Your task to perform on an android device: Go to Wikipedia Image 0: 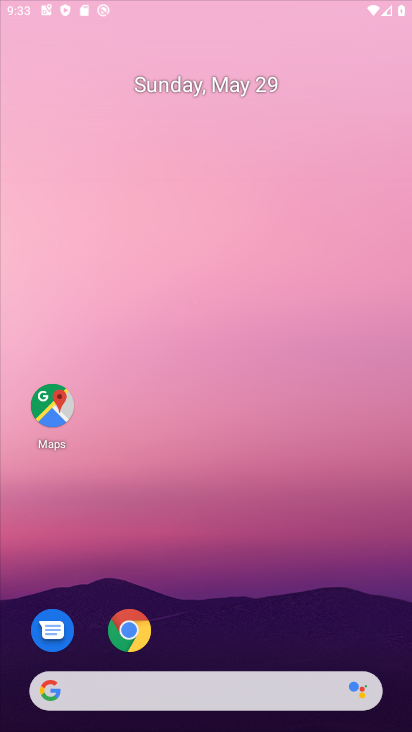
Step 0: click (357, 113)
Your task to perform on an android device: Go to Wikipedia Image 1: 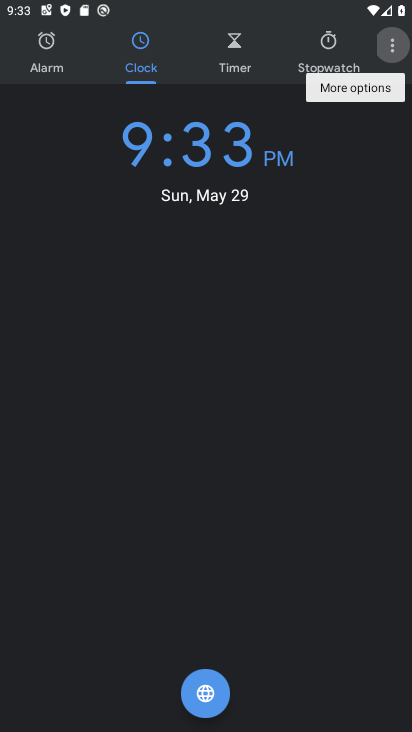
Step 1: press home button
Your task to perform on an android device: Go to Wikipedia Image 2: 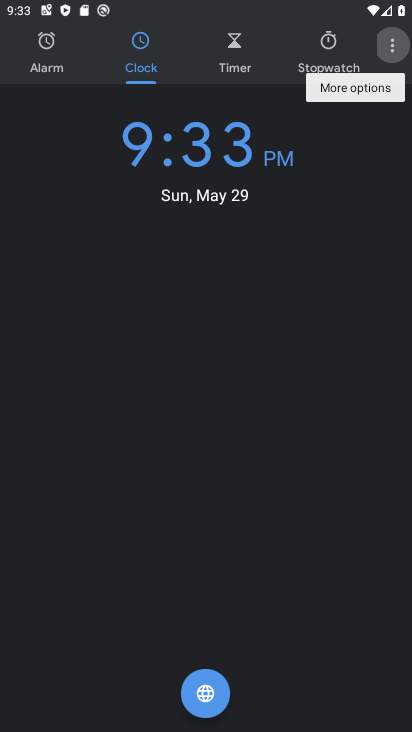
Step 2: drag from (357, 113) to (408, 217)
Your task to perform on an android device: Go to Wikipedia Image 3: 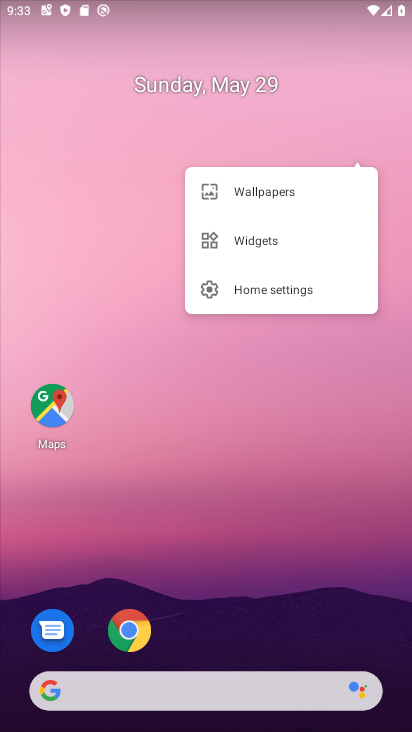
Step 3: click (126, 622)
Your task to perform on an android device: Go to Wikipedia Image 4: 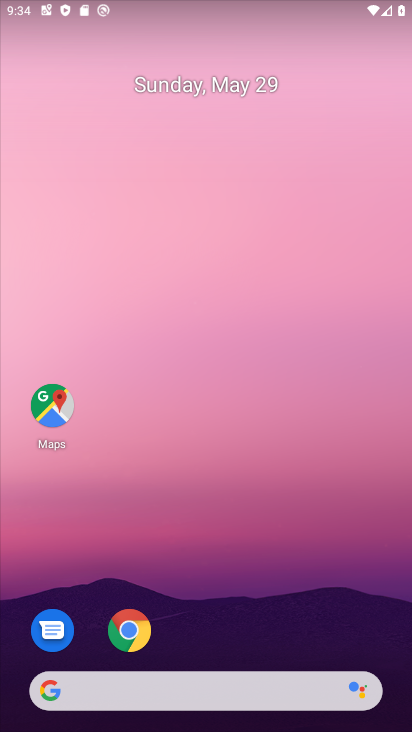
Step 4: drag from (126, 623) to (155, 381)
Your task to perform on an android device: Go to Wikipedia Image 5: 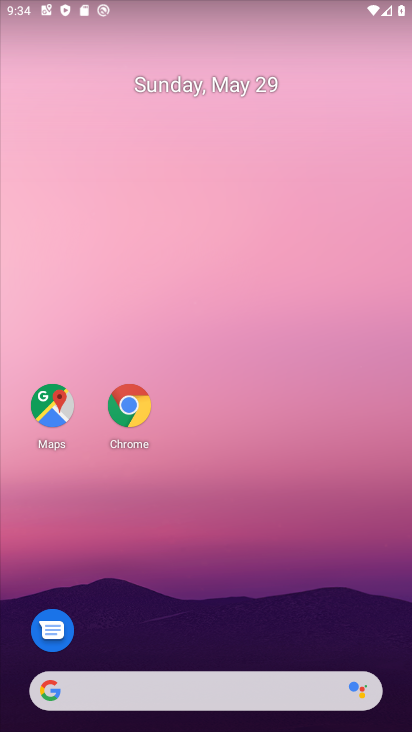
Step 5: click (149, 405)
Your task to perform on an android device: Go to Wikipedia Image 6: 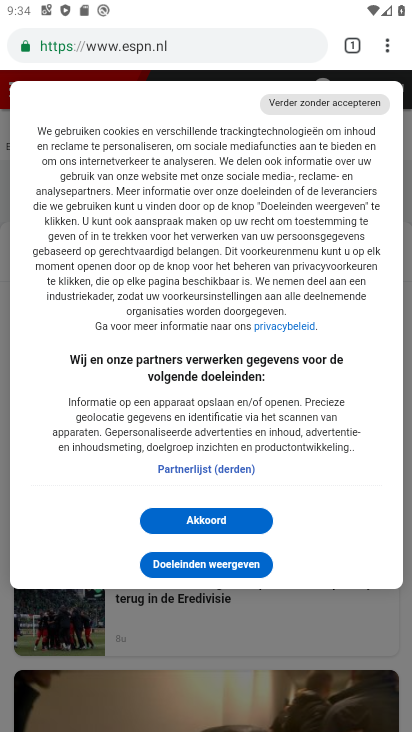
Step 6: click (225, 588)
Your task to perform on an android device: Go to Wikipedia Image 7: 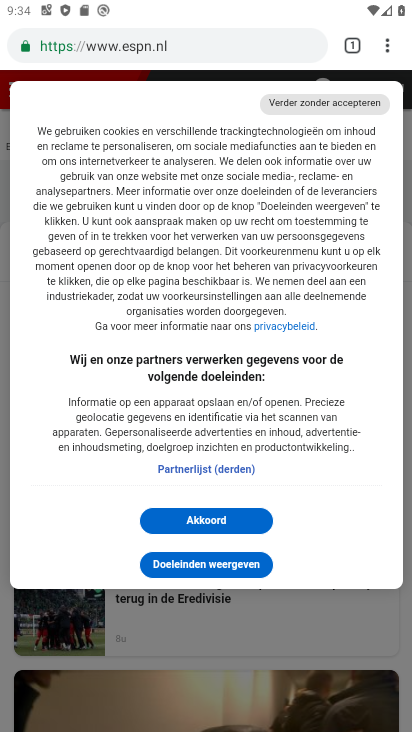
Step 7: click (205, 511)
Your task to perform on an android device: Go to Wikipedia Image 8: 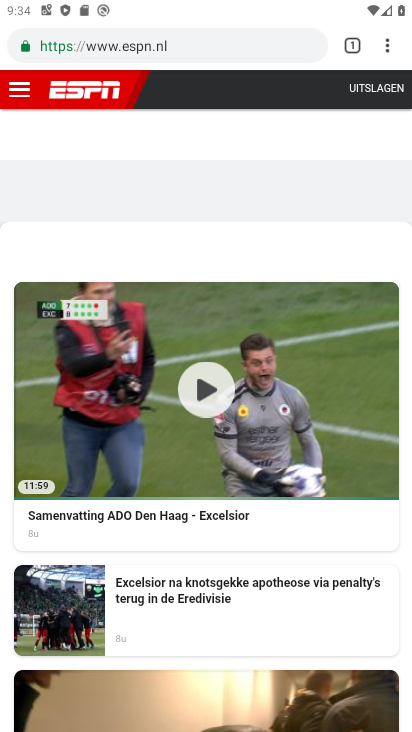
Step 8: click (359, 33)
Your task to perform on an android device: Go to Wikipedia Image 9: 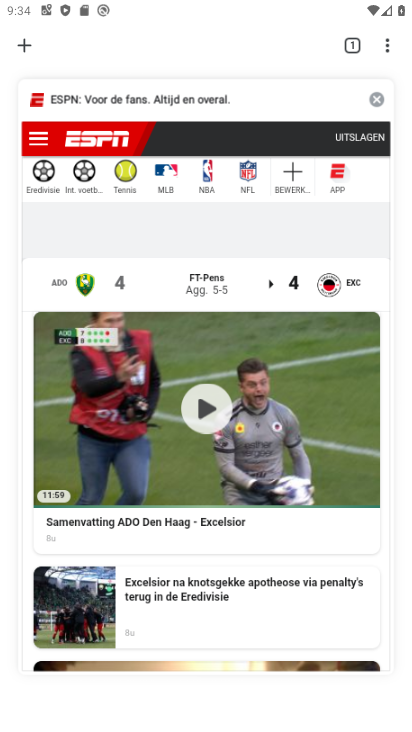
Step 9: click (374, 103)
Your task to perform on an android device: Go to Wikipedia Image 10: 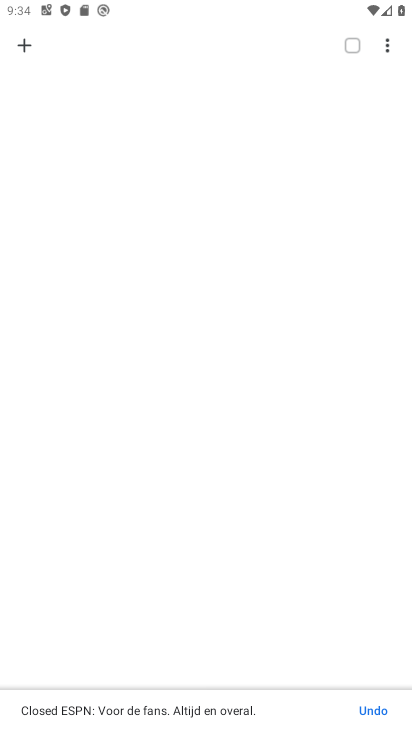
Step 10: click (33, 42)
Your task to perform on an android device: Go to Wikipedia Image 11: 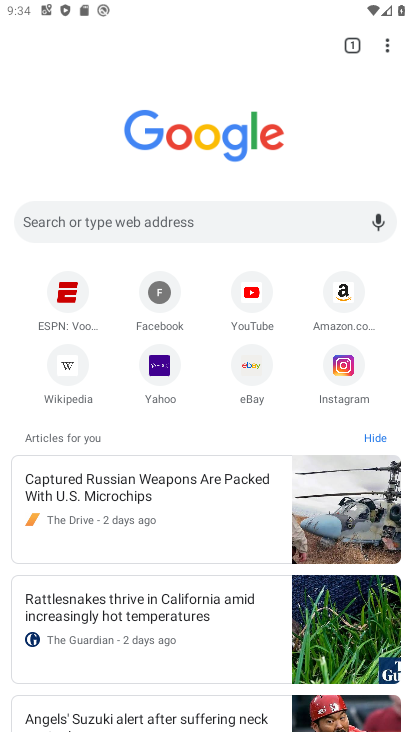
Step 11: click (69, 384)
Your task to perform on an android device: Go to Wikipedia Image 12: 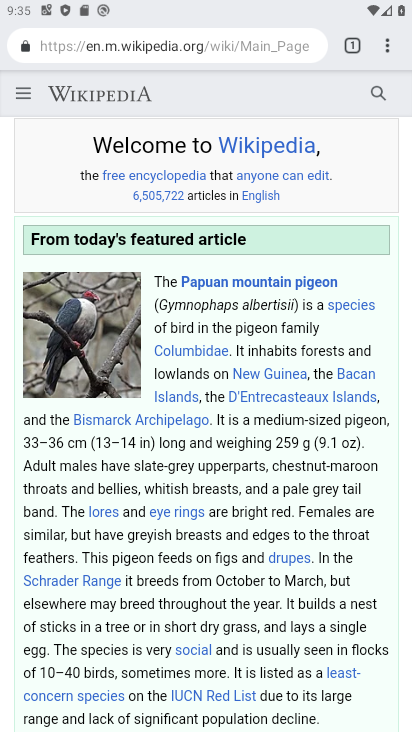
Step 12: task complete